Your task to perform on an android device: visit the assistant section in the google photos Image 0: 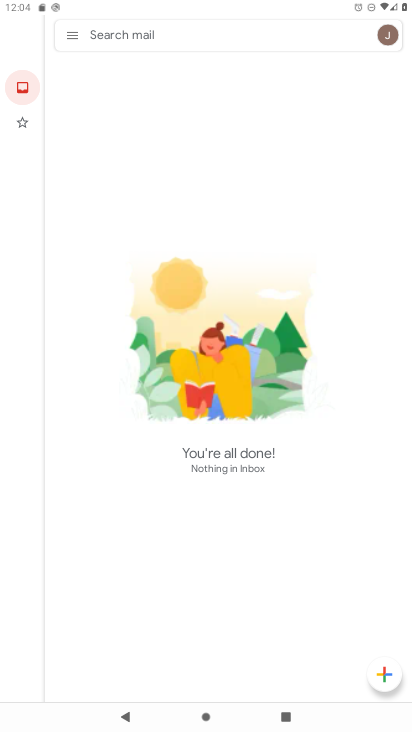
Step 0: press home button
Your task to perform on an android device: visit the assistant section in the google photos Image 1: 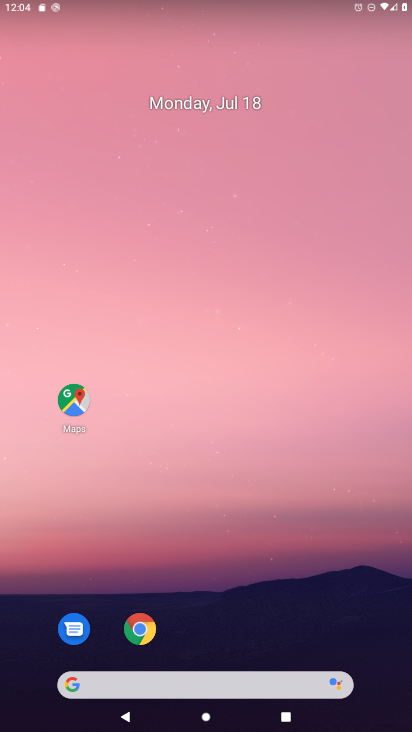
Step 1: drag from (186, 682) to (372, 100)
Your task to perform on an android device: visit the assistant section in the google photos Image 2: 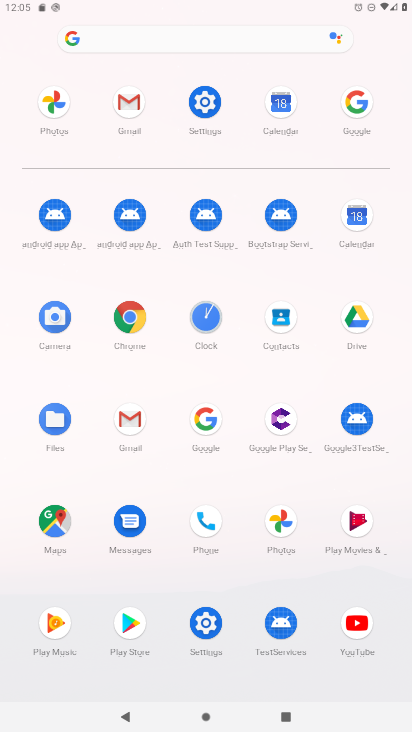
Step 2: click (281, 520)
Your task to perform on an android device: visit the assistant section in the google photos Image 3: 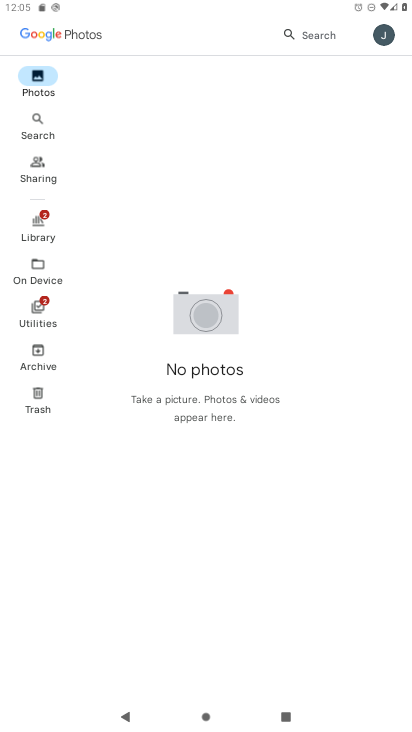
Step 3: click (47, 309)
Your task to perform on an android device: visit the assistant section in the google photos Image 4: 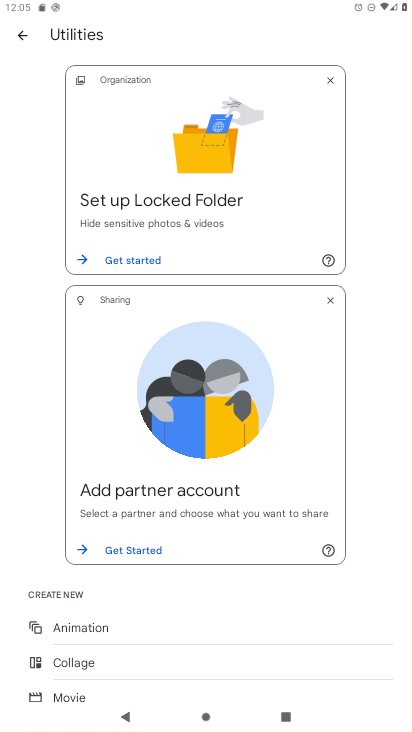
Step 4: drag from (144, 588) to (202, 453)
Your task to perform on an android device: visit the assistant section in the google photos Image 5: 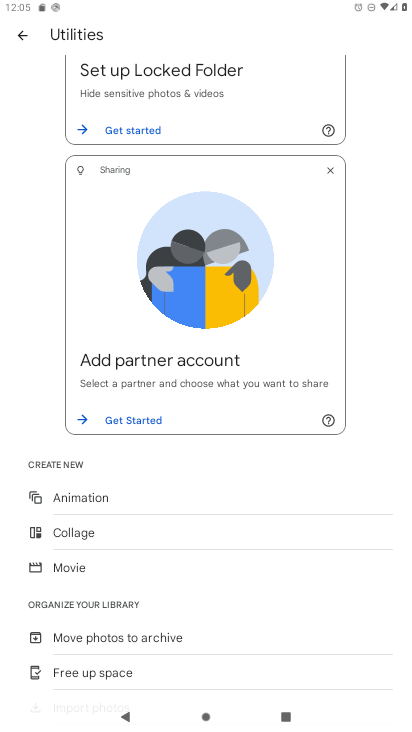
Step 5: drag from (130, 643) to (218, 509)
Your task to perform on an android device: visit the assistant section in the google photos Image 6: 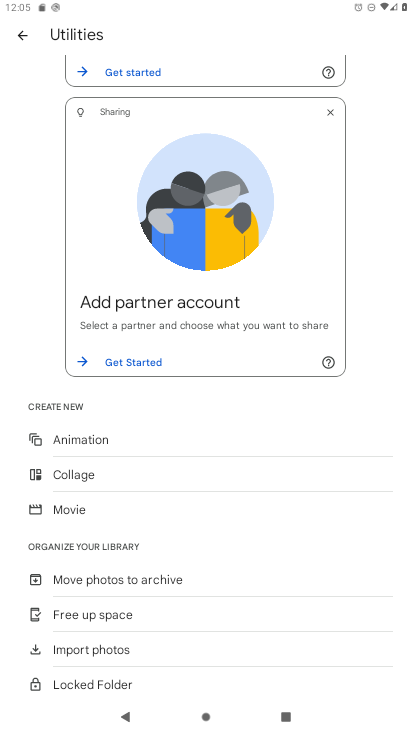
Step 6: drag from (174, 646) to (220, 530)
Your task to perform on an android device: visit the assistant section in the google photos Image 7: 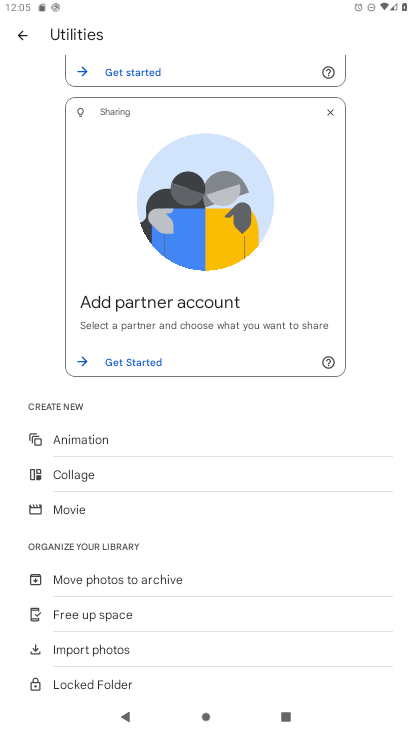
Step 7: click (23, 31)
Your task to perform on an android device: visit the assistant section in the google photos Image 8: 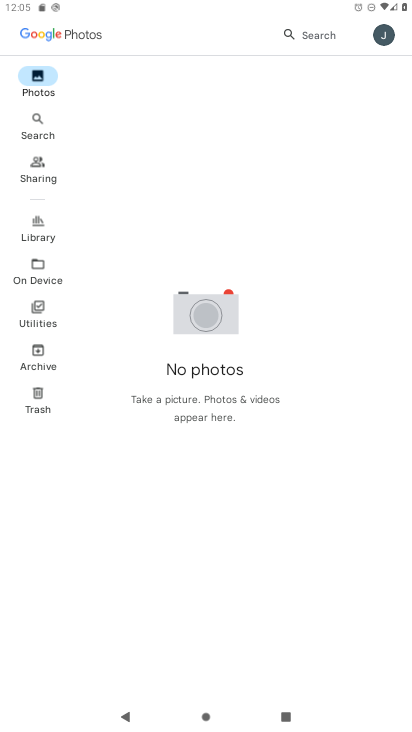
Step 8: click (32, 362)
Your task to perform on an android device: visit the assistant section in the google photos Image 9: 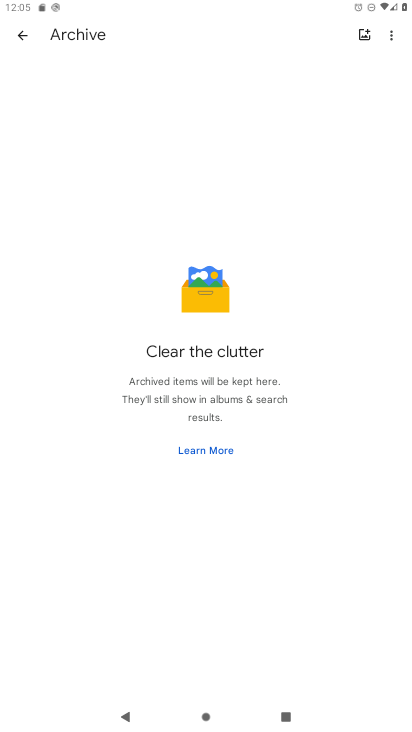
Step 9: click (25, 37)
Your task to perform on an android device: visit the assistant section in the google photos Image 10: 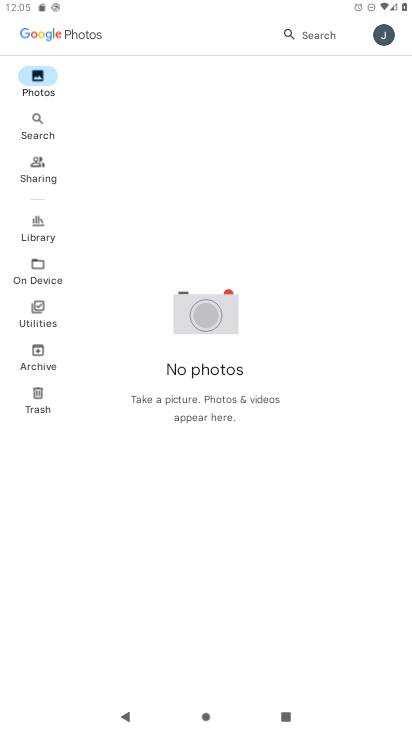
Step 10: click (41, 283)
Your task to perform on an android device: visit the assistant section in the google photos Image 11: 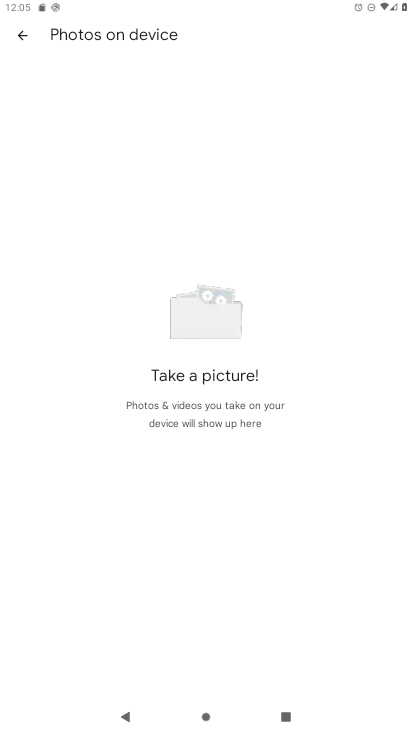
Step 11: click (25, 31)
Your task to perform on an android device: visit the assistant section in the google photos Image 12: 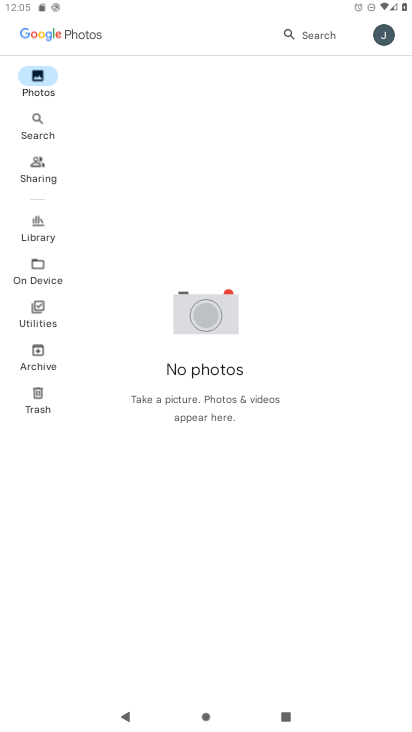
Step 12: click (44, 170)
Your task to perform on an android device: visit the assistant section in the google photos Image 13: 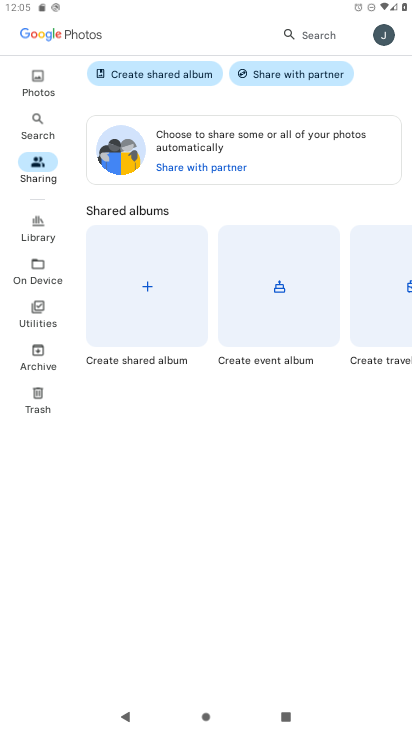
Step 13: click (35, 84)
Your task to perform on an android device: visit the assistant section in the google photos Image 14: 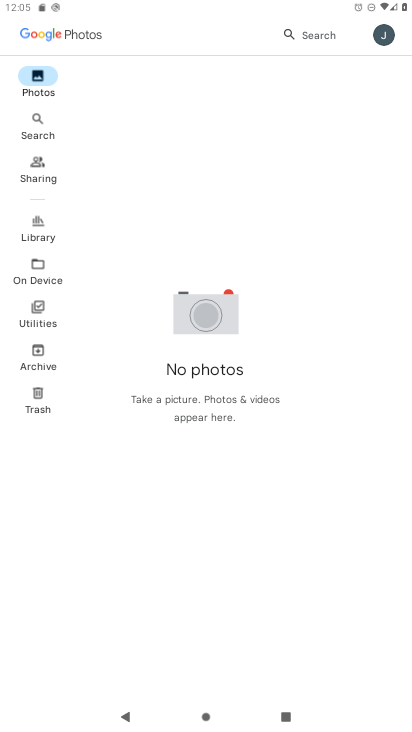
Step 14: click (380, 38)
Your task to perform on an android device: visit the assistant section in the google photos Image 15: 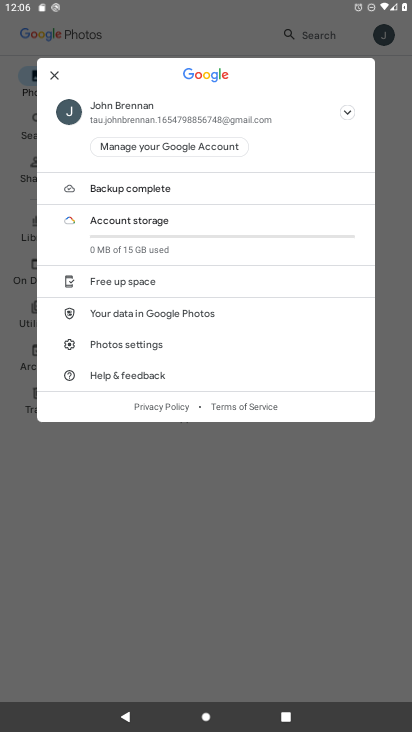
Step 15: click (138, 346)
Your task to perform on an android device: visit the assistant section in the google photos Image 16: 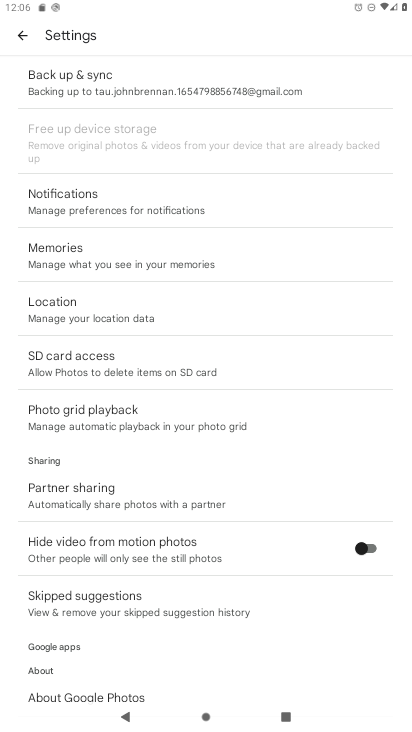
Step 16: drag from (139, 382) to (175, 291)
Your task to perform on an android device: visit the assistant section in the google photos Image 17: 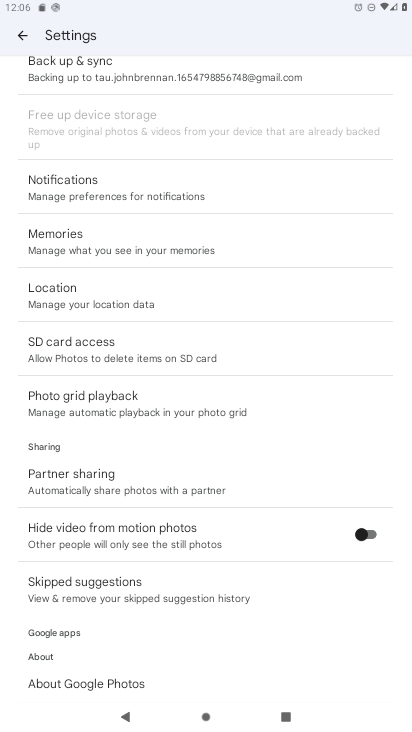
Step 17: click (171, 194)
Your task to perform on an android device: visit the assistant section in the google photos Image 18: 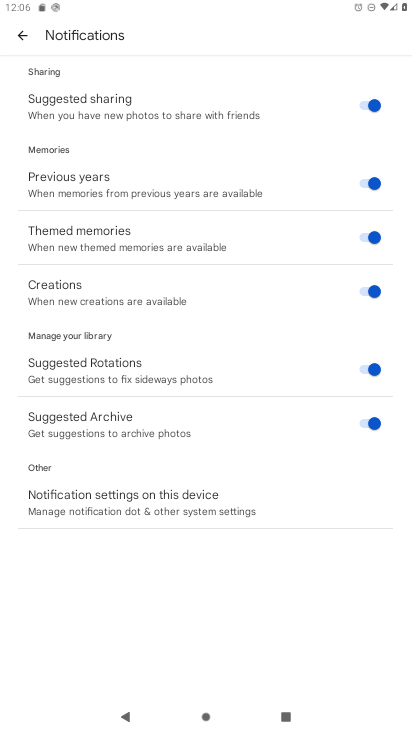
Step 18: task complete